Your task to perform on an android device: Open CNN.com Image 0: 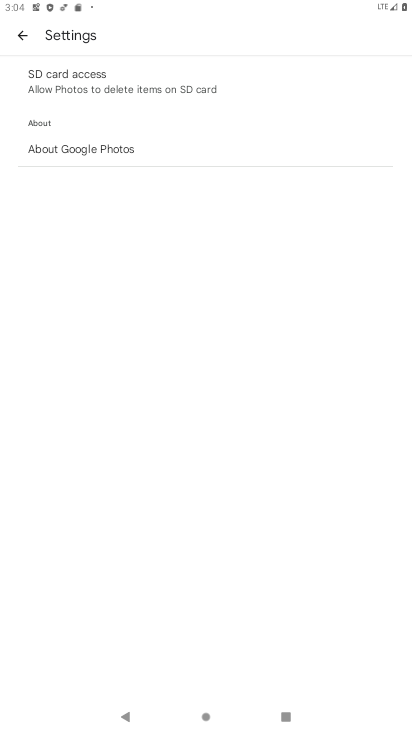
Step 0: drag from (210, 627) to (410, 195)
Your task to perform on an android device: Open CNN.com Image 1: 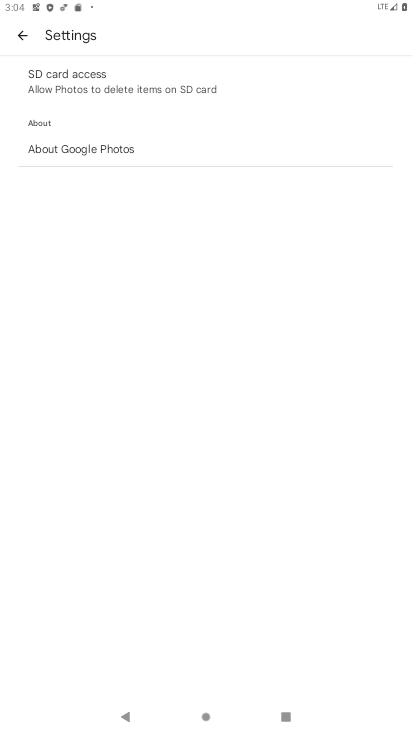
Step 1: press home button
Your task to perform on an android device: Open CNN.com Image 2: 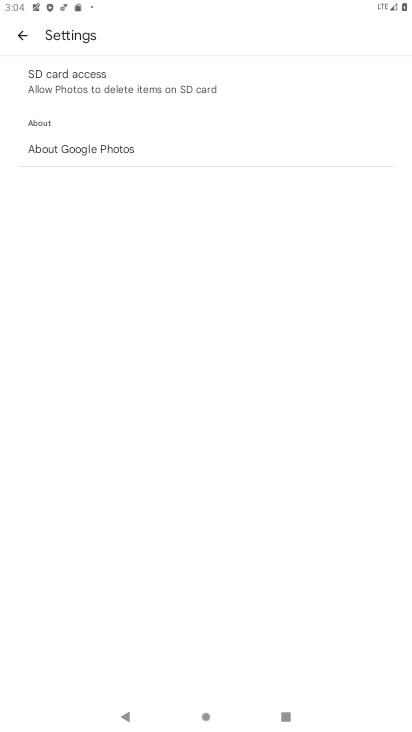
Step 2: drag from (410, 195) to (55, 730)
Your task to perform on an android device: Open CNN.com Image 3: 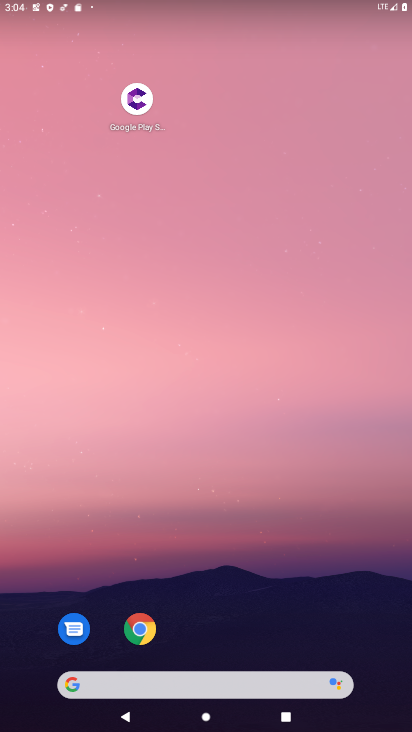
Step 3: drag from (232, 331) to (286, 34)
Your task to perform on an android device: Open CNN.com Image 4: 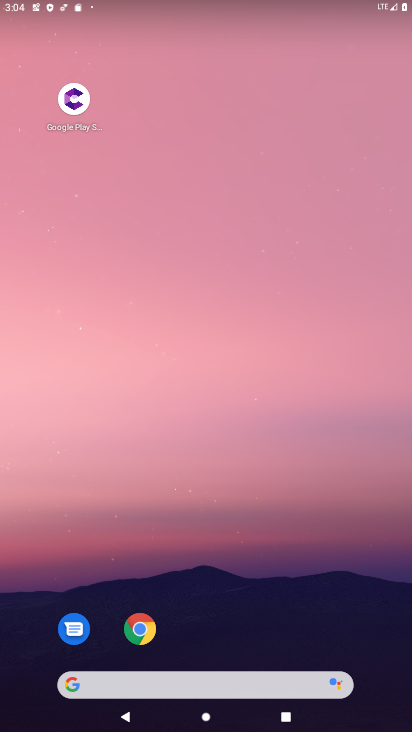
Step 4: drag from (178, 650) to (176, 134)
Your task to perform on an android device: Open CNN.com Image 5: 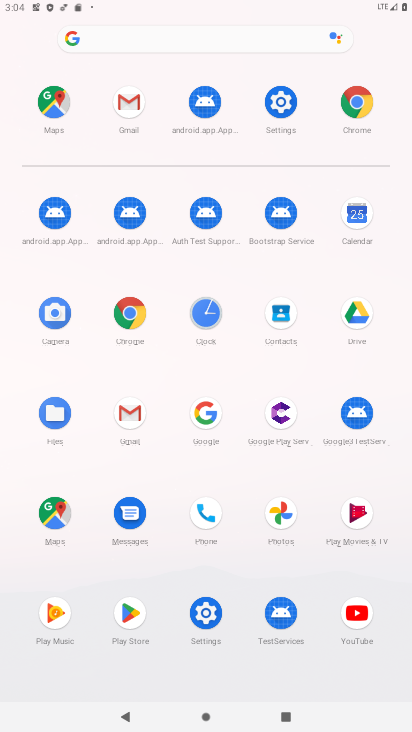
Step 5: click (127, 44)
Your task to perform on an android device: Open CNN.com Image 6: 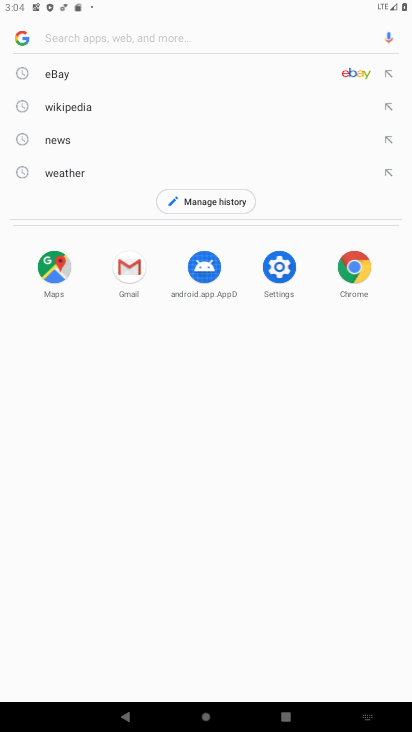
Step 6: type "CNN.com"
Your task to perform on an android device: Open CNN.com Image 7: 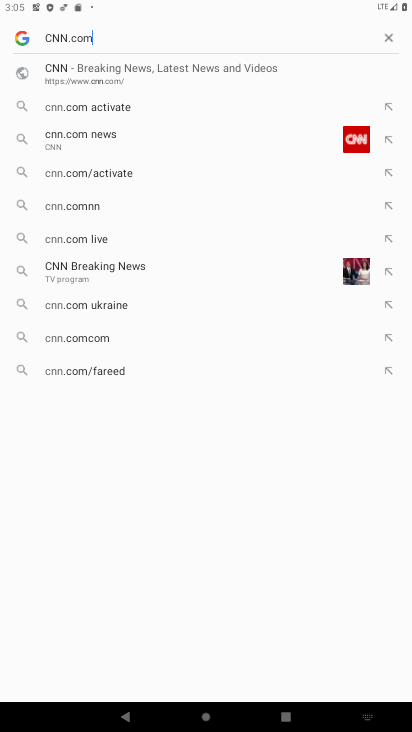
Step 7: type ""
Your task to perform on an android device: Open CNN.com Image 8: 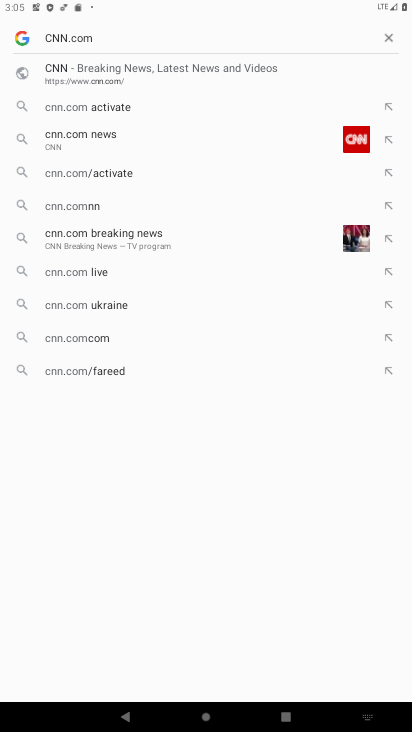
Step 8: click (81, 82)
Your task to perform on an android device: Open CNN.com Image 9: 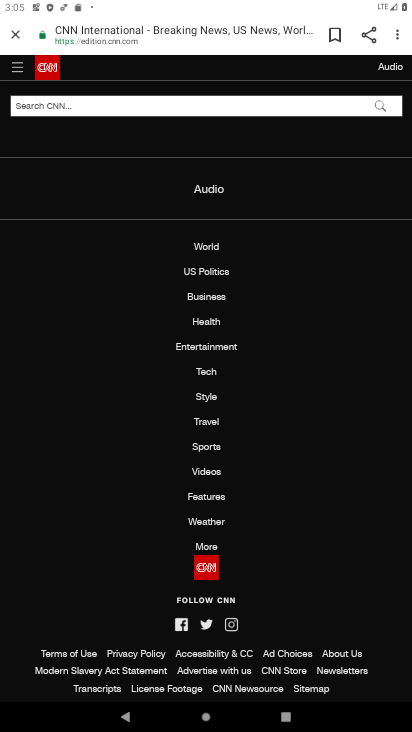
Step 9: task complete